Your task to perform on an android device: What's the news in Japan? Image 0: 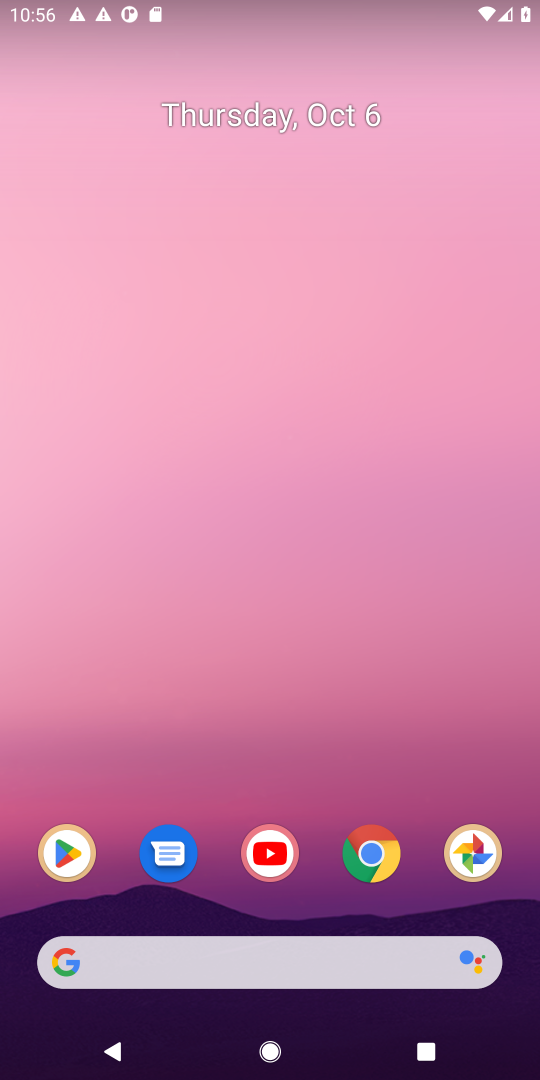
Step 0: click (190, 963)
Your task to perform on an android device: What's the news in Japan? Image 1: 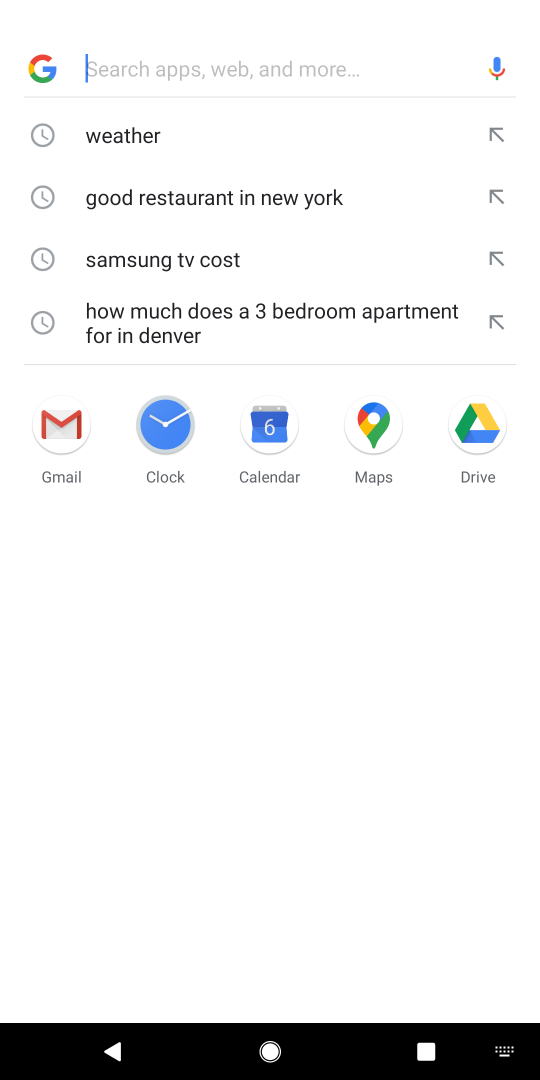
Step 1: type "news in japan"
Your task to perform on an android device: What's the news in Japan? Image 2: 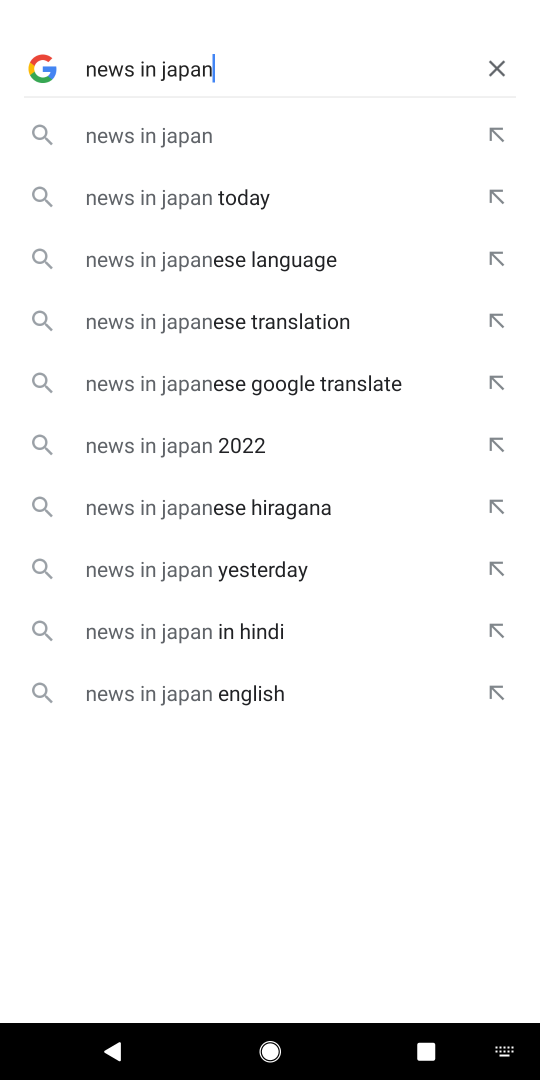
Step 2: click (233, 153)
Your task to perform on an android device: What's the news in Japan? Image 3: 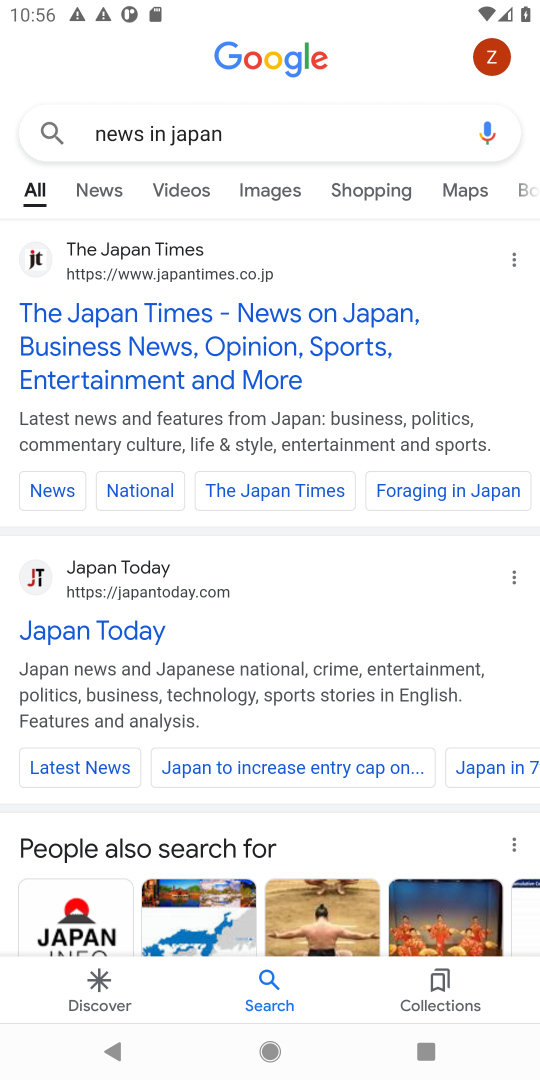
Step 3: click (117, 623)
Your task to perform on an android device: What's the news in Japan? Image 4: 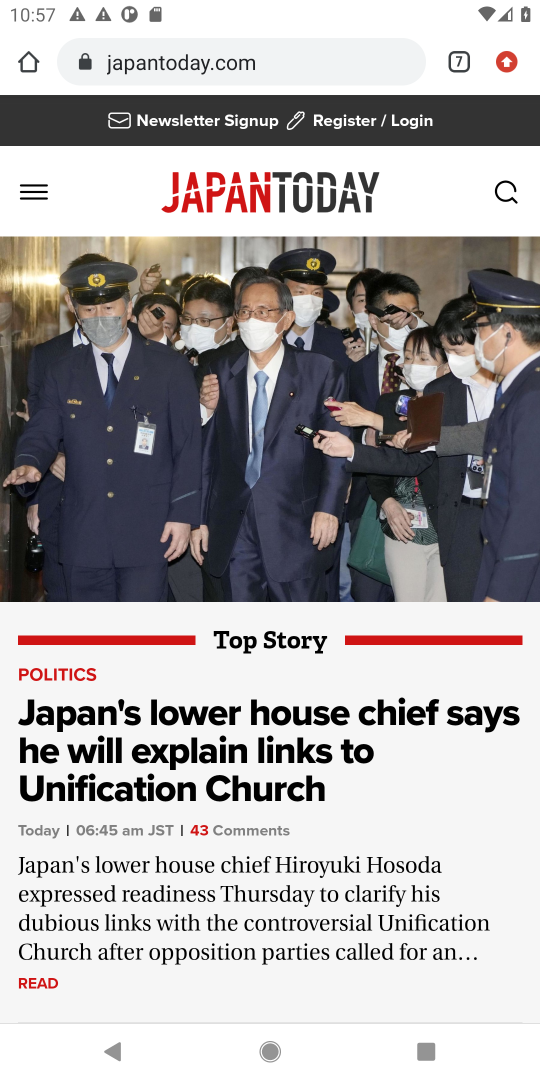
Step 4: task complete